Your task to perform on an android device: uninstall "Google Docs" Image 0: 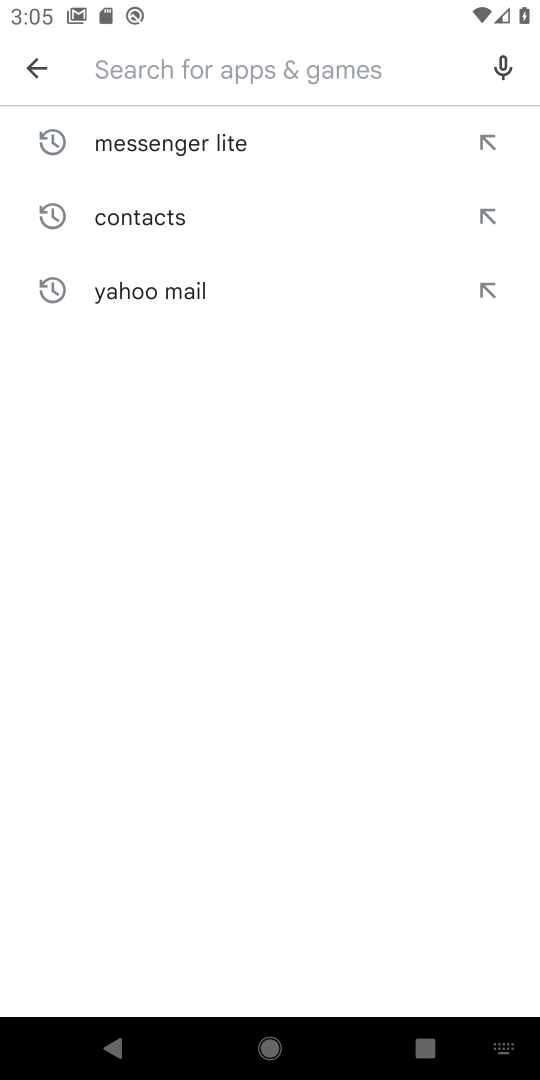
Step 0: press home button
Your task to perform on an android device: uninstall "Google Docs" Image 1: 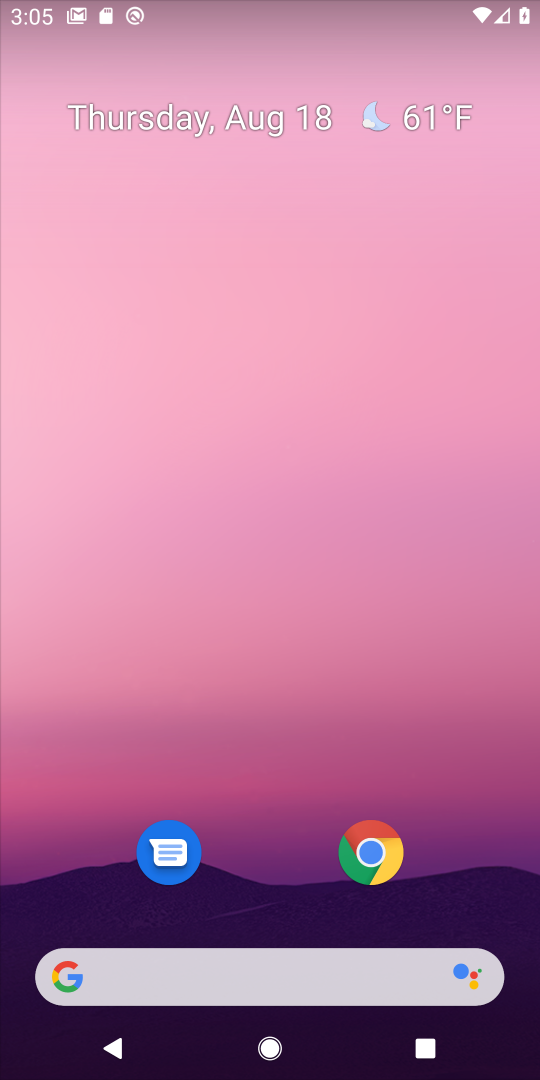
Step 1: drag from (281, 895) to (281, 77)
Your task to perform on an android device: uninstall "Google Docs" Image 2: 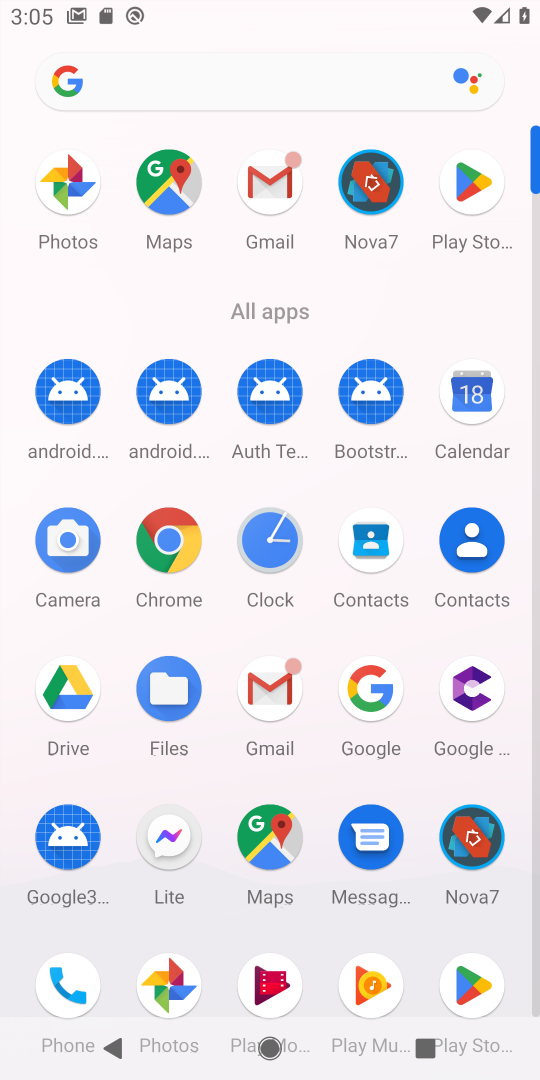
Step 2: click (468, 168)
Your task to perform on an android device: uninstall "Google Docs" Image 3: 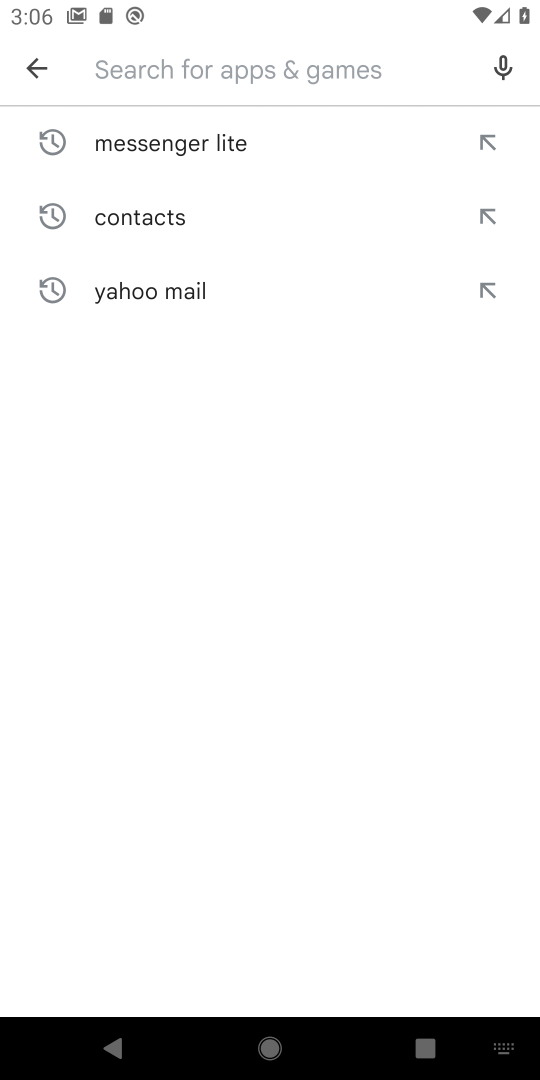
Step 3: type "Google Docs"
Your task to perform on an android device: uninstall "Google Docs" Image 4: 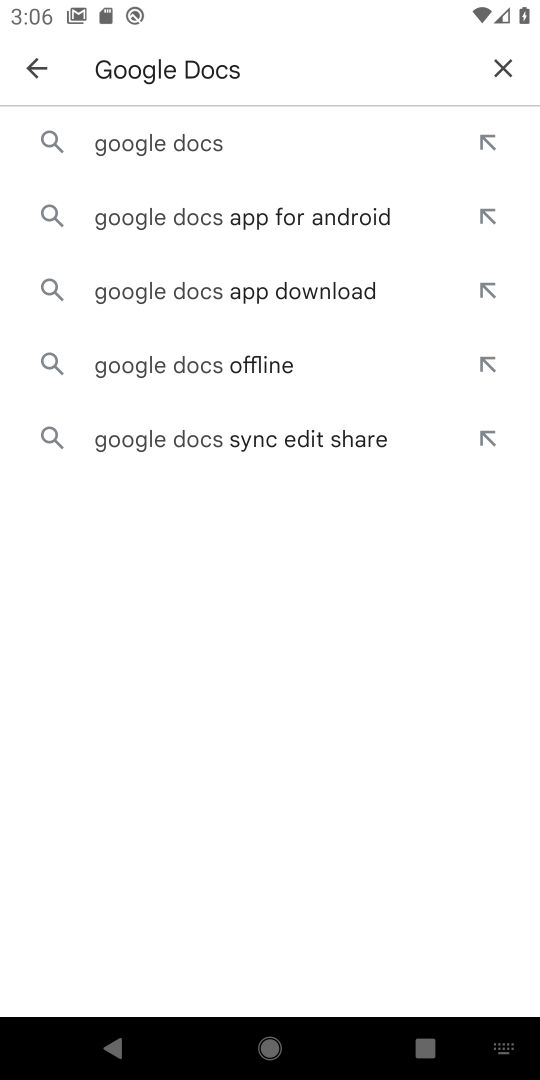
Step 4: click (209, 133)
Your task to perform on an android device: uninstall "Google Docs" Image 5: 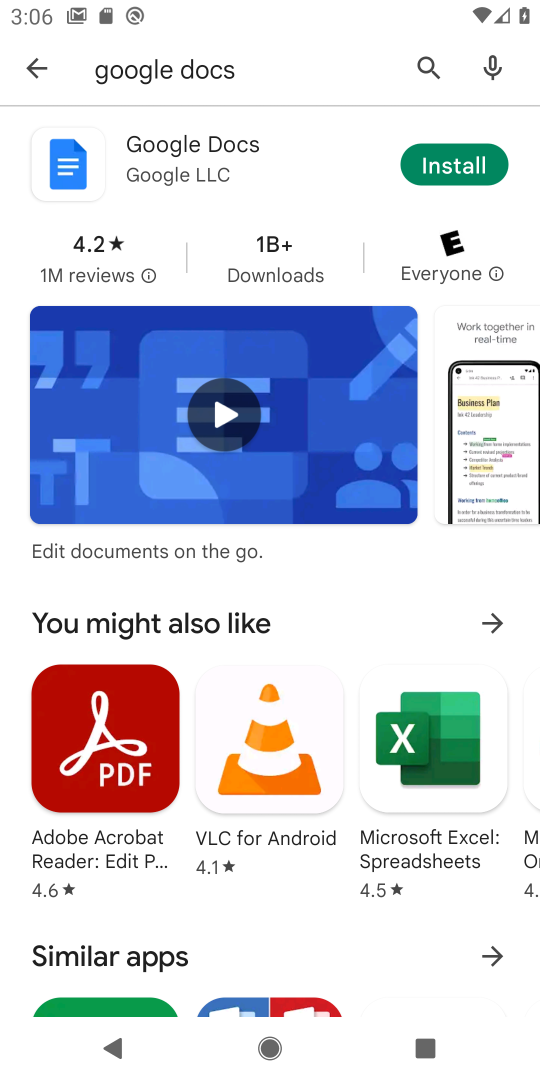
Step 5: task complete